Your task to perform on an android device: Open calendar and show me the fourth week of next month Image 0: 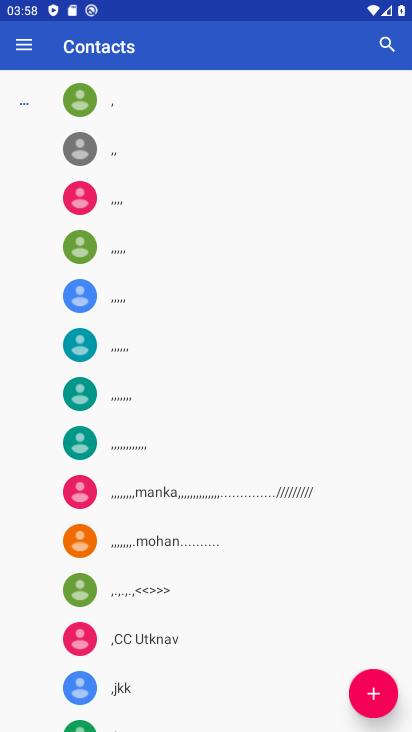
Step 0: press home button
Your task to perform on an android device: Open calendar and show me the fourth week of next month Image 1: 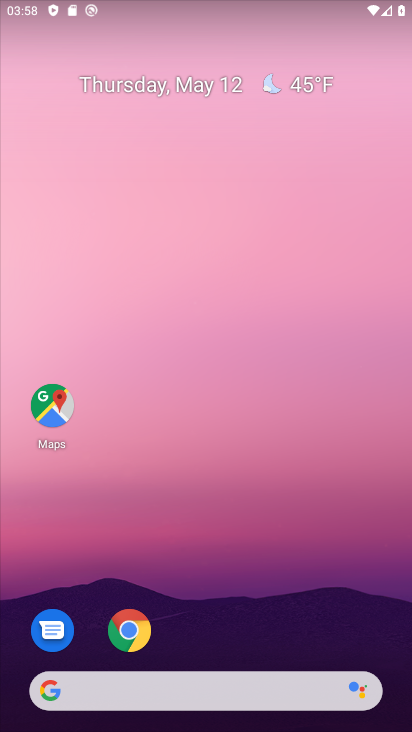
Step 1: drag from (286, 504) to (355, 42)
Your task to perform on an android device: Open calendar and show me the fourth week of next month Image 2: 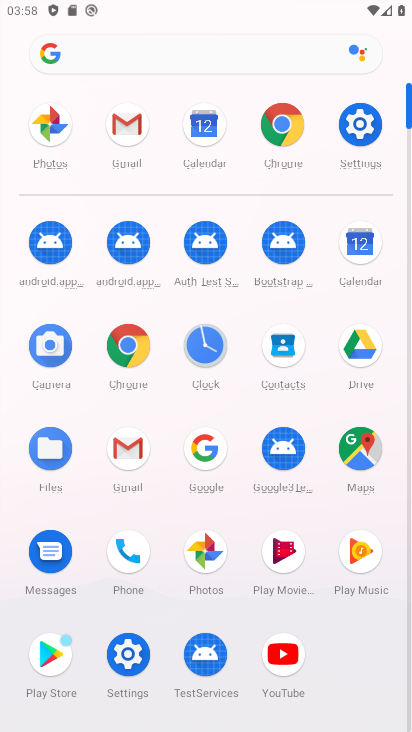
Step 2: click (354, 247)
Your task to perform on an android device: Open calendar and show me the fourth week of next month Image 3: 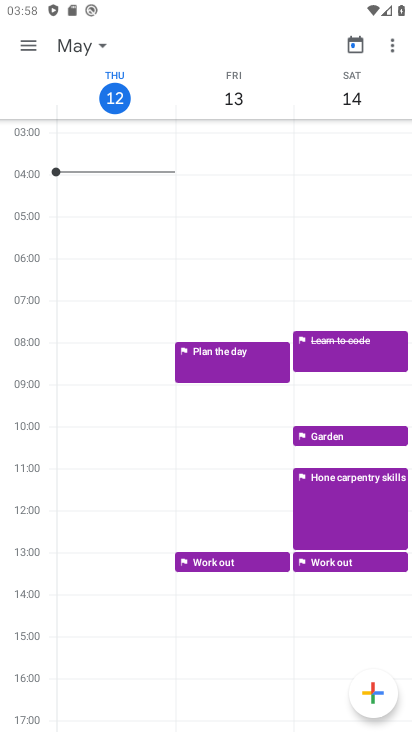
Step 3: click (37, 40)
Your task to perform on an android device: Open calendar and show me the fourth week of next month Image 4: 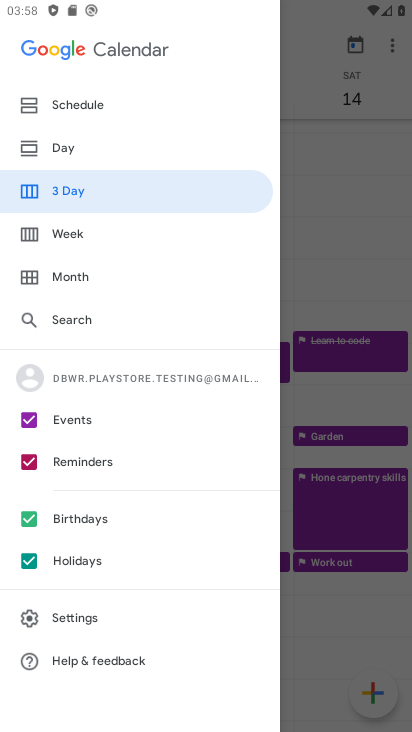
Step 4: click (81, 243)
Your task to perform on an android device: Open calendar and show me the fourth week of next month Image 5: 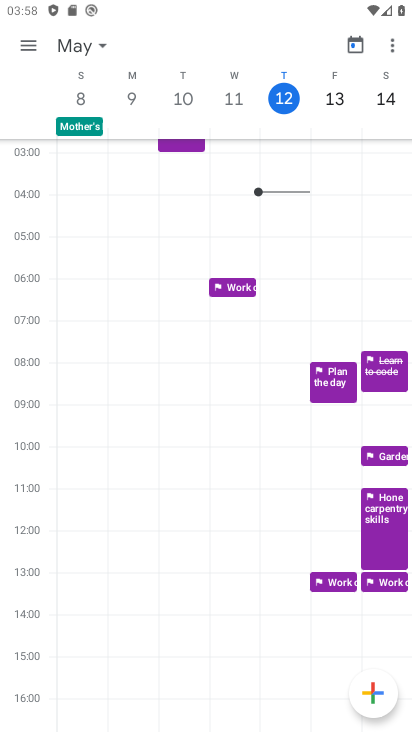
Step 5: task complete